Your task to perform on an android device: Set the phone to "Do not disturb". Image 0: 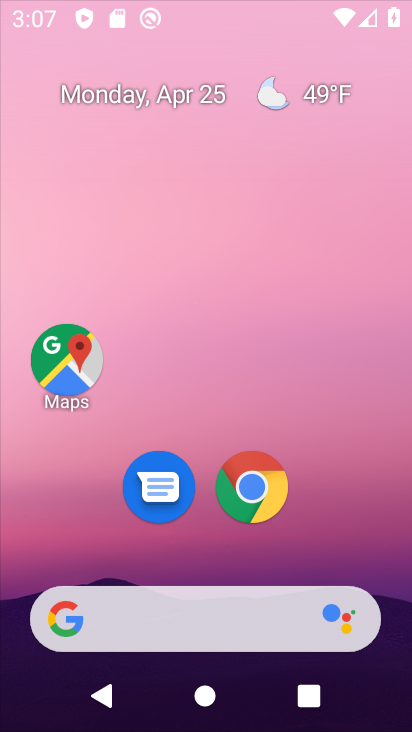
Step 0: click (337, 1)
Your task to perform on an android device: Set the phone to "Do not disturb". Image 1: 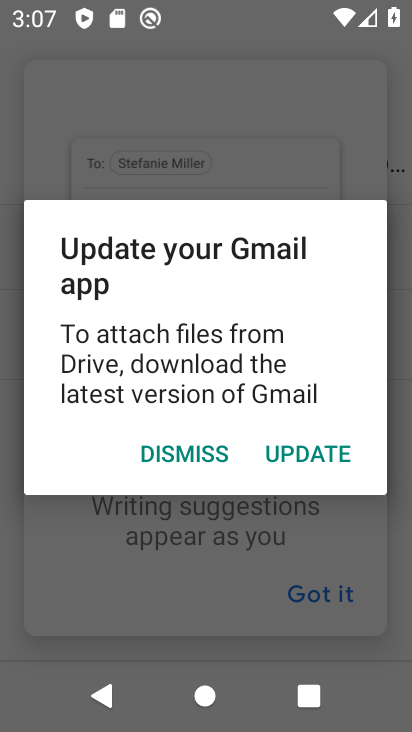
Step 1: press home button
Your task to perform on an android device: Set the phone to "Do not disturb". Image 2: 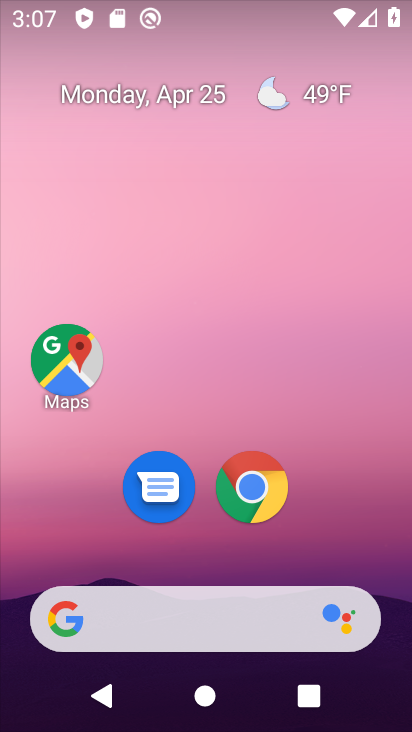
Step 2: drag from (404, 601) to (360, 1)
Your task to perform on an android device: Set the phone to "Do not disturb". Image 3: 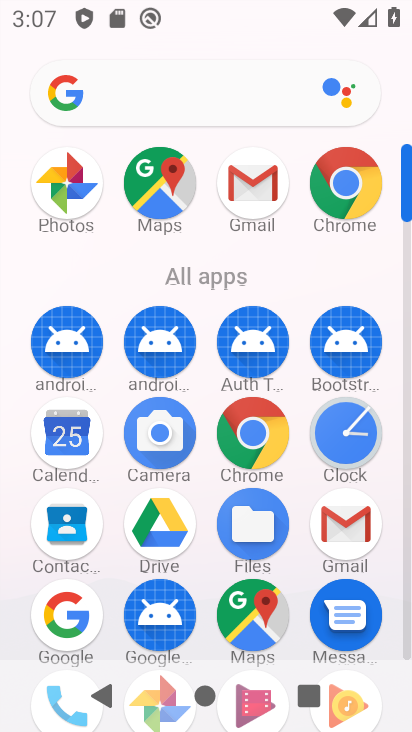
Step 3: drag from (408, 567) to (407, 533)
Your task to perform on an android device: Set the phone to "Do not disturb". Image 4: 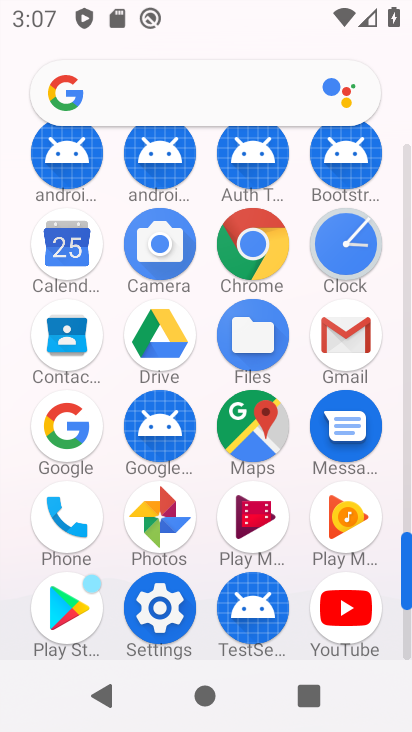
Step 4: click (170, 603)
Your task to perform on an android device: Set the phone to "Do not disturb". Image 5: 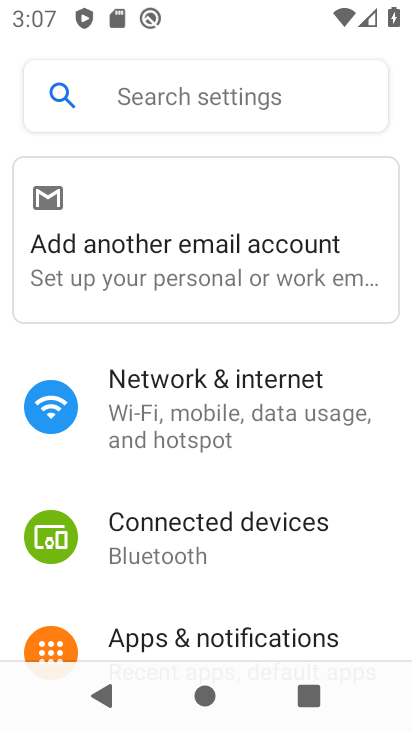
Step 5: drag from (370, 620) to (351, 369)
Your task to perform on an android device: Set the phone to "Do not disturb". Image 6: 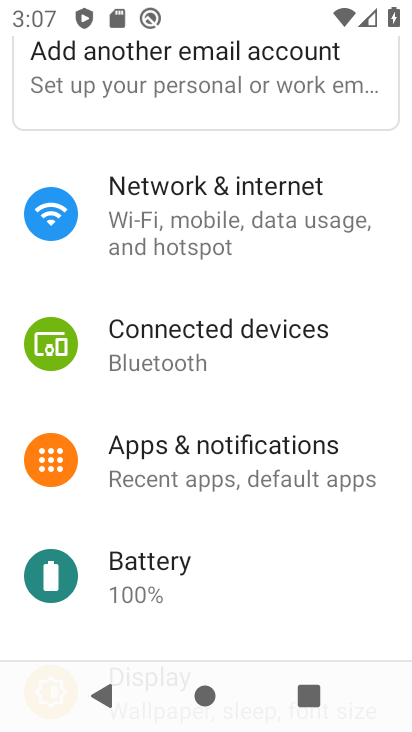
Step 6: drag from (352, 622) to (343, 278)
Your task to perform on an android device: Set the phone to "Do not disturb". Image 7: 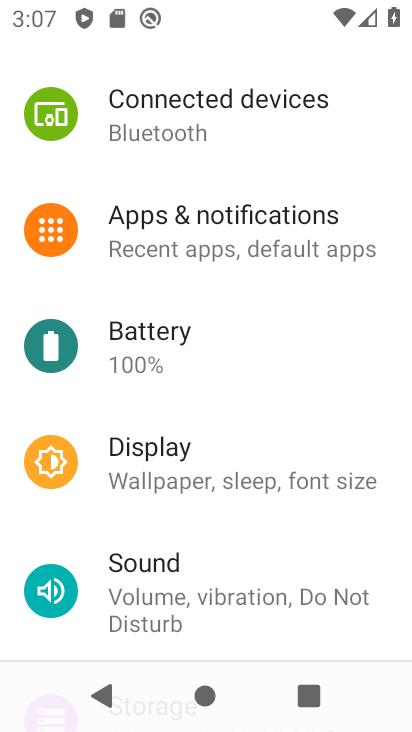
Step 7: click (160, 578)
Your task to perform on an android device: Set the phone to "Do not disturb". Image 8: 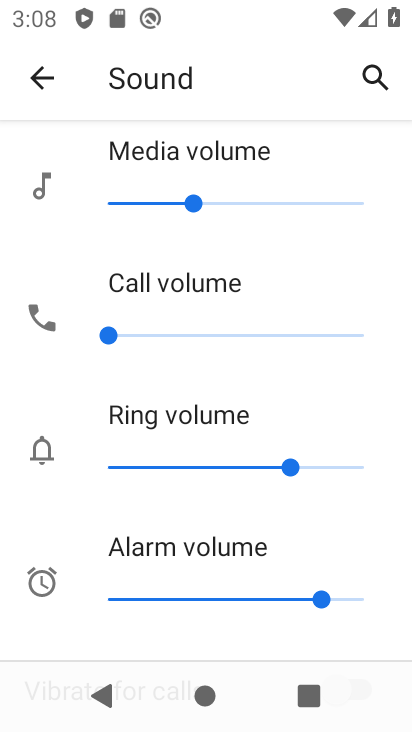
Step 8: drag from (386, 626) to (370, 290)
Your task to perform on an android device: Set the phone to "Do not disturb". Image 9: 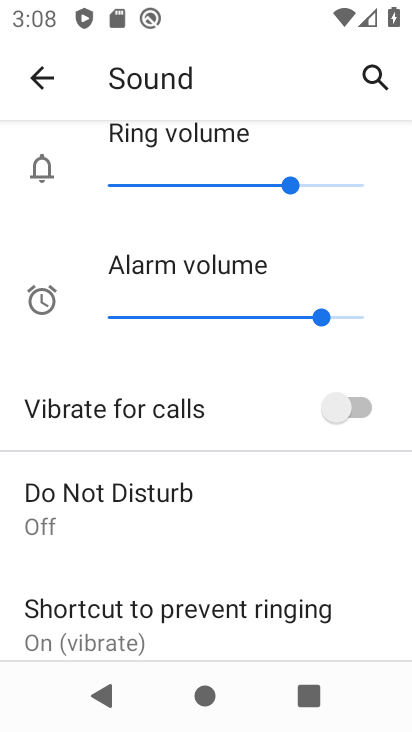
Step 9: click (79, 505)
Your task to perform on an android device: Set the phone to "Do not disturb". Image 10: 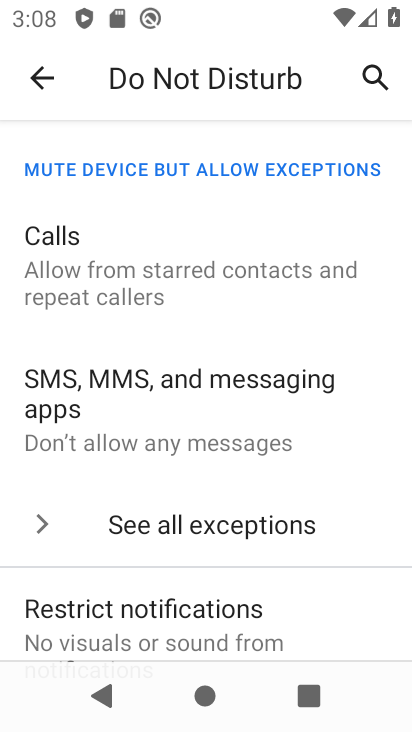
Step 10: drag from (325, 592) to (310, 175)
Your task to perform on an android device: Set the phone to "Do not disturb". Image 11: 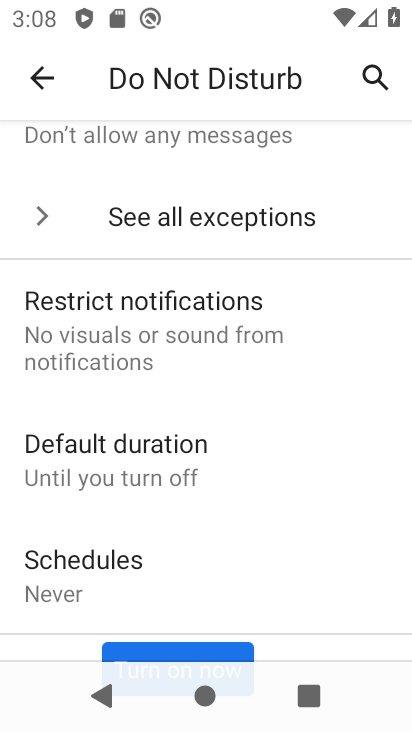
Step 11: drag from (246, 431) to (234, 139)
Your task to perform on an android device: Set the phone to "Do not disturb". Image 12: 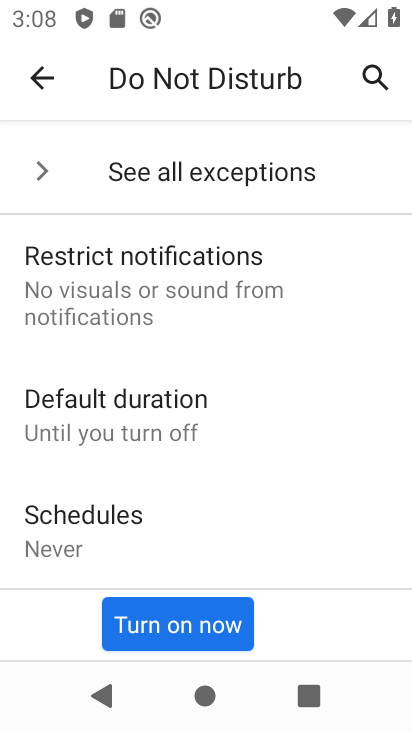
Step 12: click (170, 622)
Your task to perform on an android device: Set the phone to "Do not disturb". Image 13: 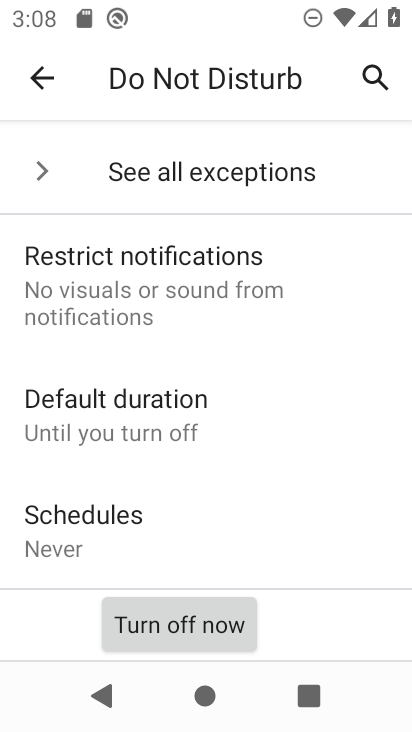
Step 13: task complete